Your task to perform on an android device: turn smart compose on in the gmail app Image 0: 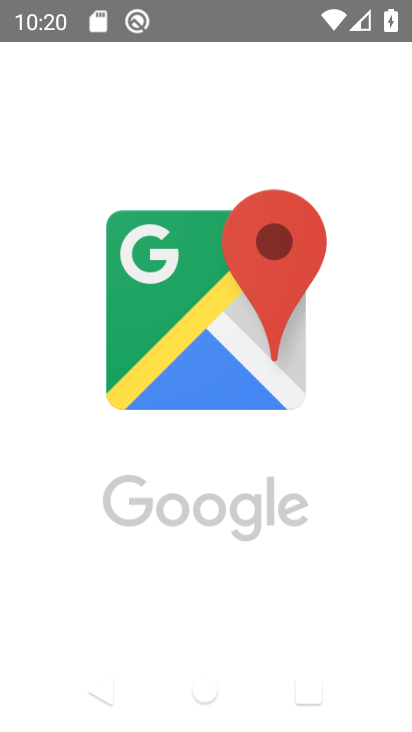
Step 0: press home button
Your task to perform on an android device: turn smart compose on in the gmail app Image 1: 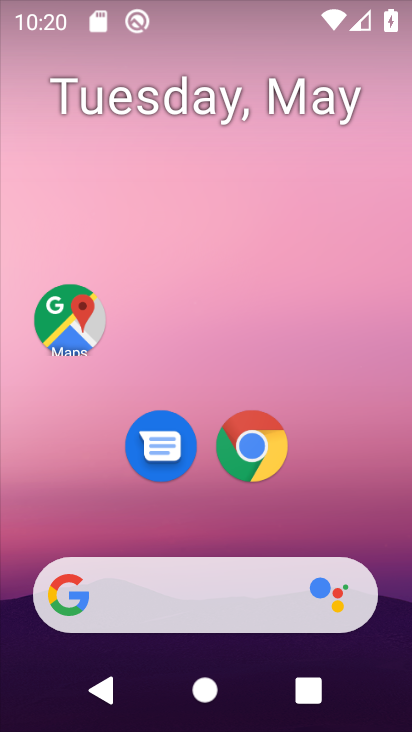
Step 1: drag from (212, 518) to (275, 215)
Your task to perform on an android device: turn smart compose on in the gmail app Image 2: 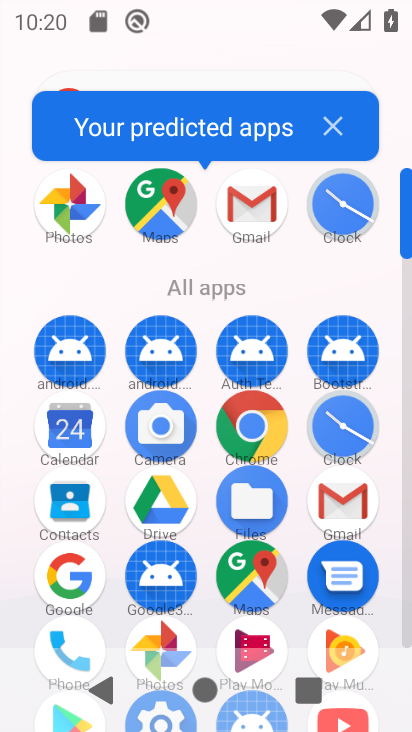
Step 2: click (357, 507)
Your task to perform on an android device: turn smart compose on in the gmail app Image 3: 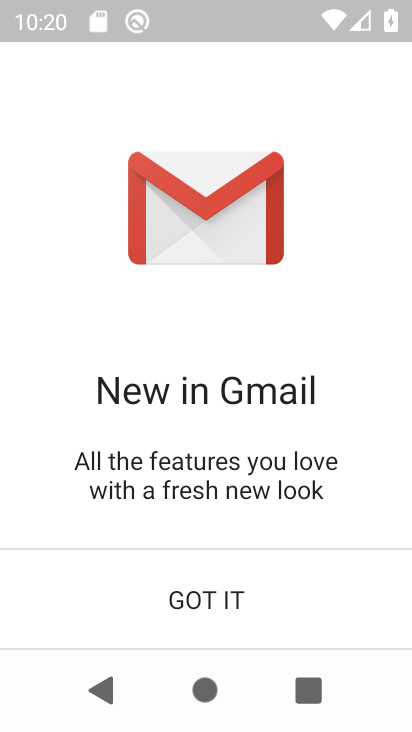
Step 3: click (251, 597)
Your task to perform on an android device: turn smart compose on in the gmail app Image 4: 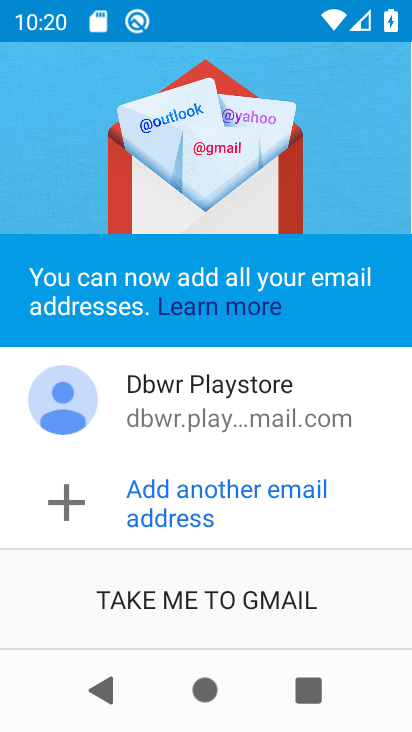
Step 4: click (210, 604)
Your task to perform on an android device: turn smart compose on in the gmail app Image 5: 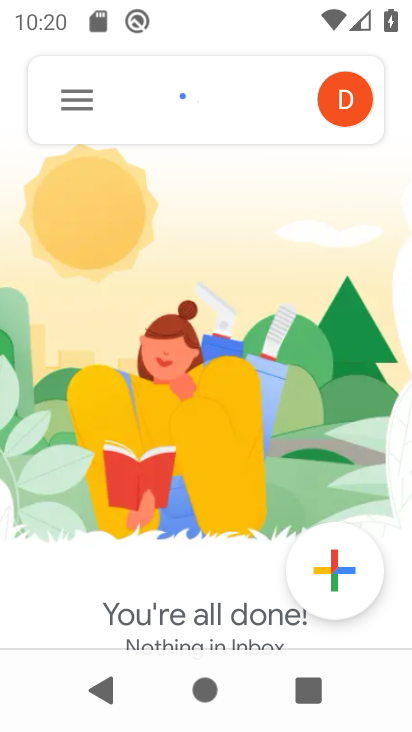
Step 5: click (92, 115)
Your task to perform on an android device: turn smart compose on in the gmail app Image 6: 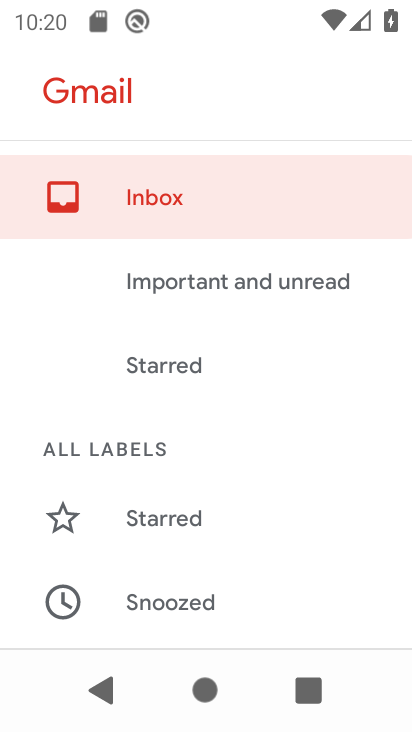
Step 6: click (223, 167)
Your task to perform on an android device: turn smart compose on in the gmail app Image 7: 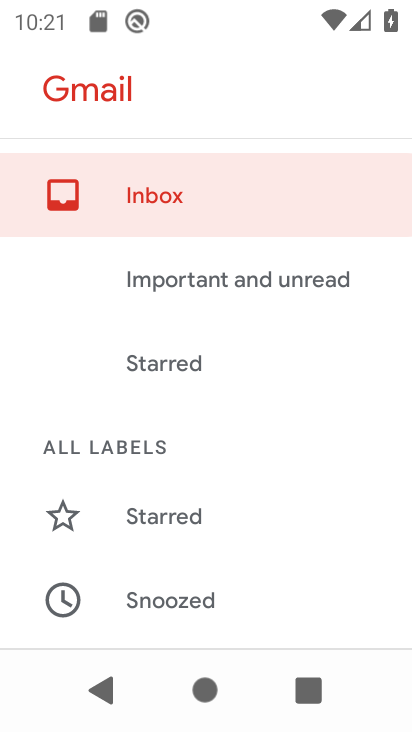
Step 7: drag from (225, 551) to (311, 143)
Your task to perform on an android device: turn smart compose on in the gmail app Image 8: 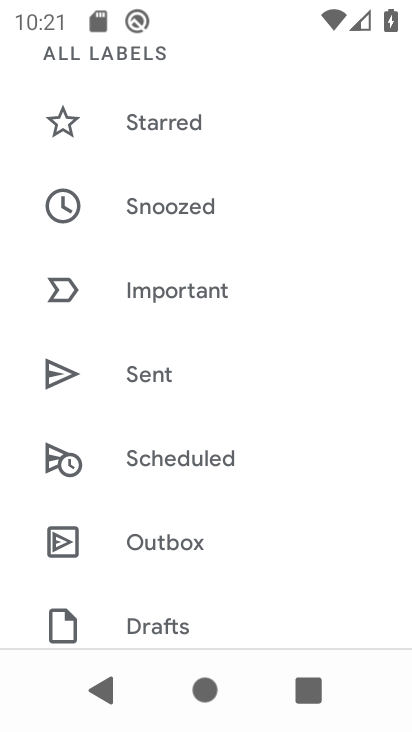
Step 8: drag from (209, 594) to (225, 4)
Your task to perform on an android device: turn smart compose on in the gmail app Image 9: 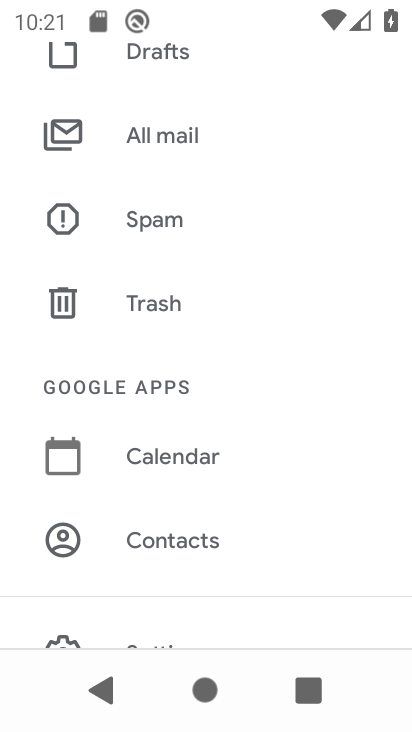
Step 9: drag from (185, 606) to (246, 234)
Your task to perform on an android device: turn smart compose on in the gmail app Image 10: 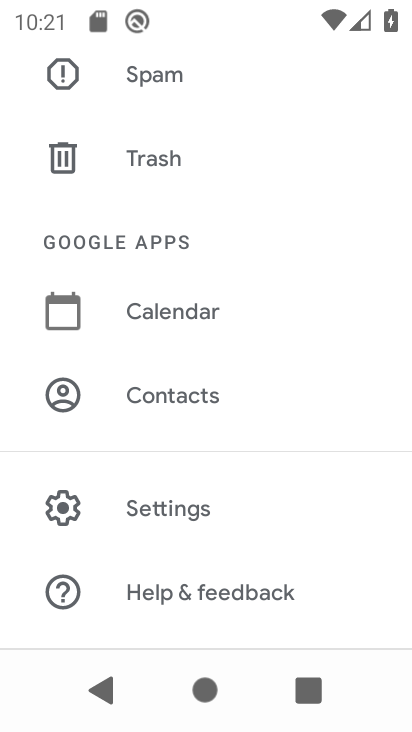
Step 10: click (187, 512)
Your task to perform on an android device: turn smart compose on in the gmail app Image 11: 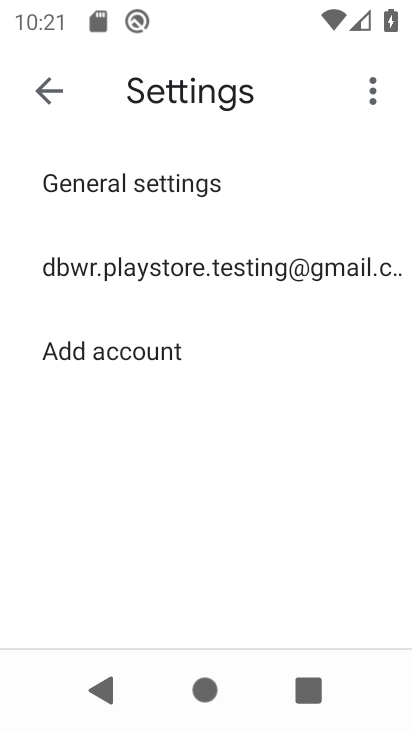
Step 11: click (217, 275)
Your task to perform on an android device: turn smart compose on in the gmail app Image 12: 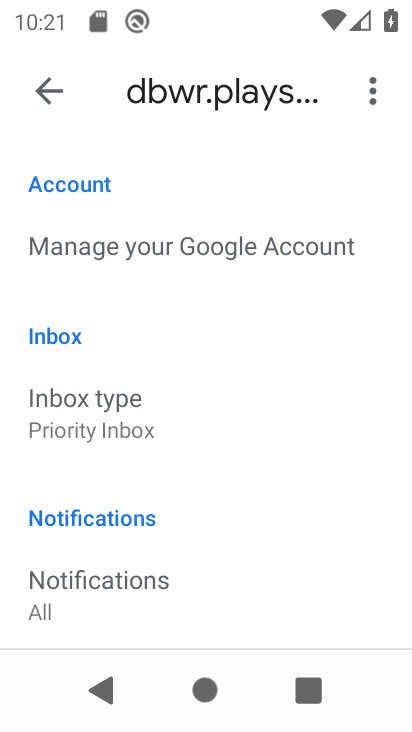
Step 12: task complete